Your task to perform on an android device: turn off improve location accuracy Image 0: 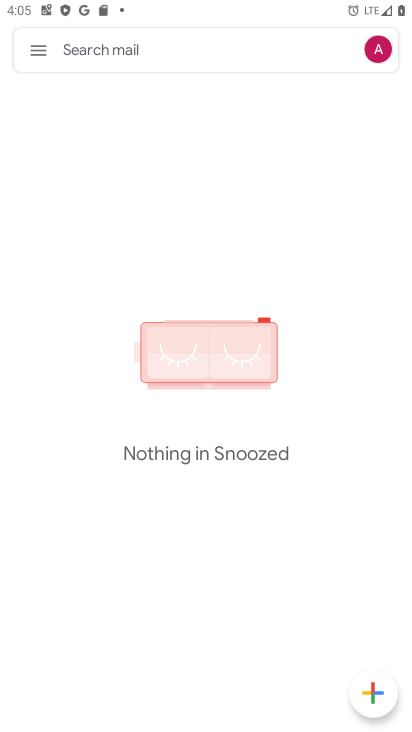
Step 0: press home button
Your task to perform on an android device: turn off improve location accuracy Image 1: 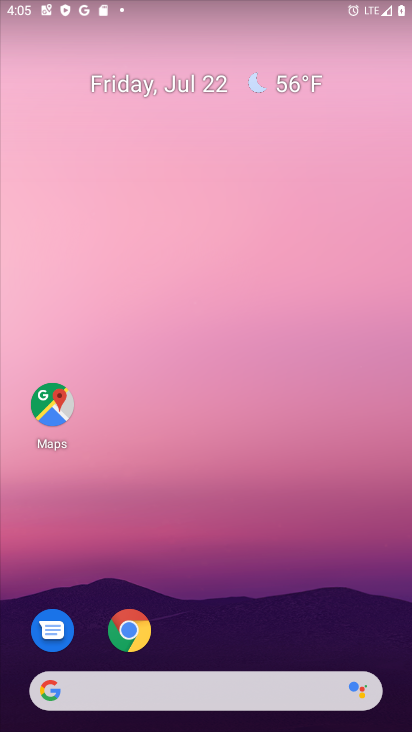
Step 1: drag from (197, 685) to (221, 128)
Your task to perform on an android device: turn off improve location accuracy Image 2: 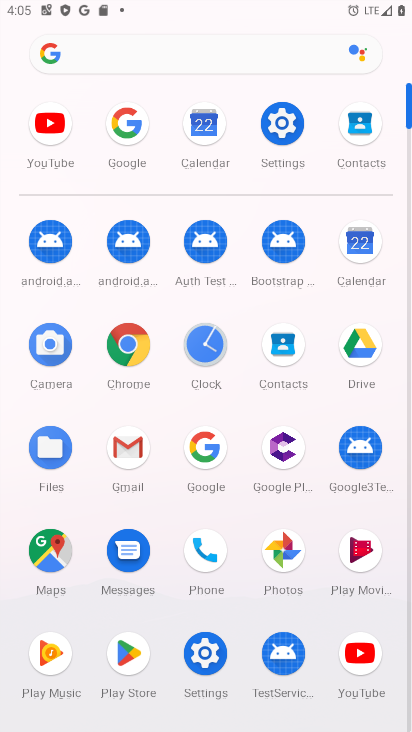
Step 2: click (286, 132)
Your task to perform on an android device: turn off improve location accuracy Image 3: 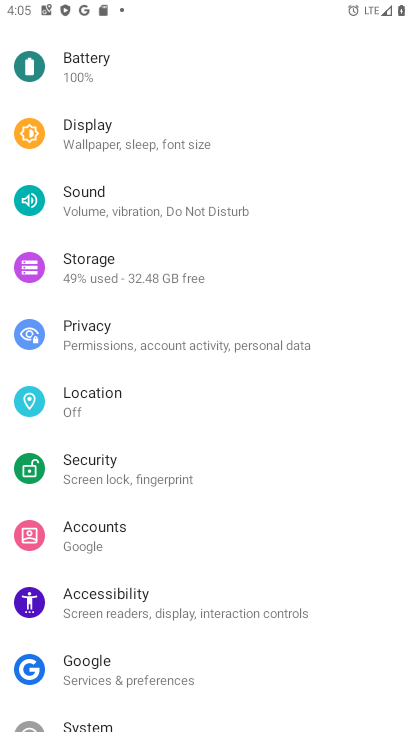
Step 3: click (112, 403)
Your task to perform on an android device: turn off improve location accuracy Image 4: 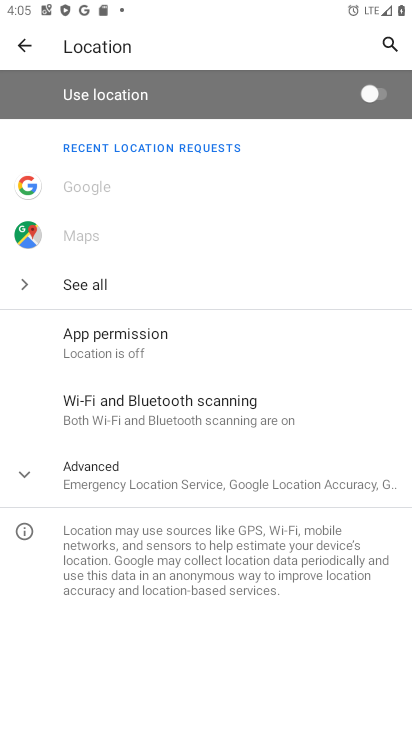
Step 4: click (374, 97)
Your task to perform on an android device: turn off improve location accuracy Image 5: 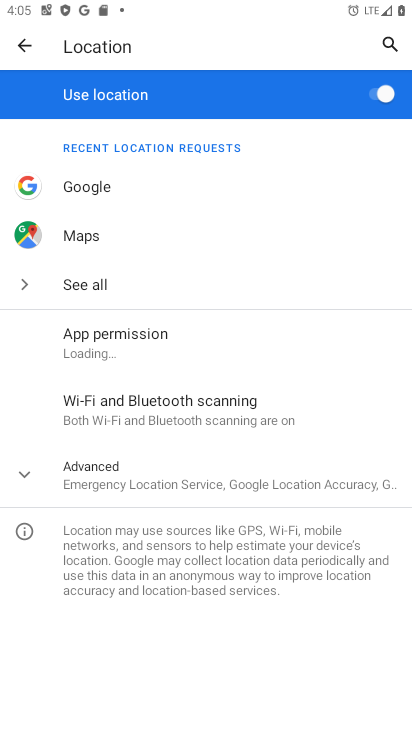
Step 5: click (118, 482)
Your task to perform on an android device: turn off improve location accuracy Image 6: 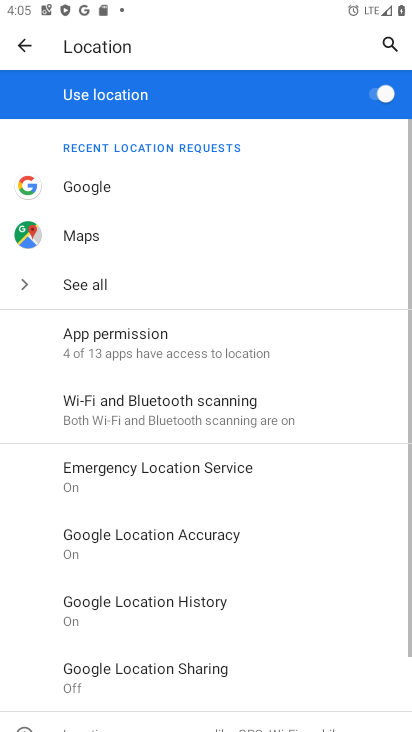
Step 6: click (178, 552)
Your task to perform on an android device: turn off improve location accuracy Image 7: 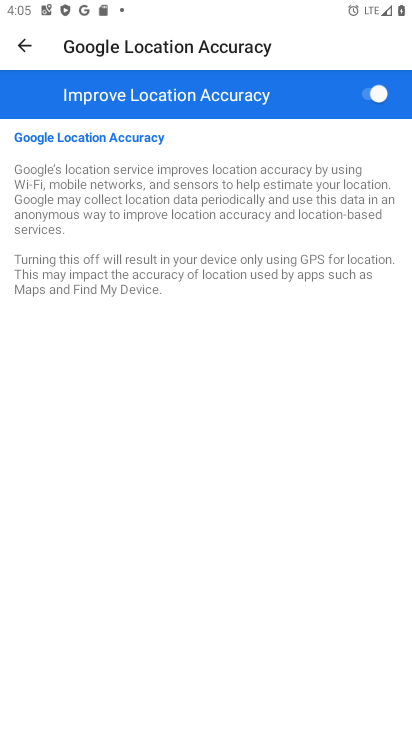
Step 7: click (377, 90)
Your task to perform on an android device: turn off improve location accuracy Image 8: 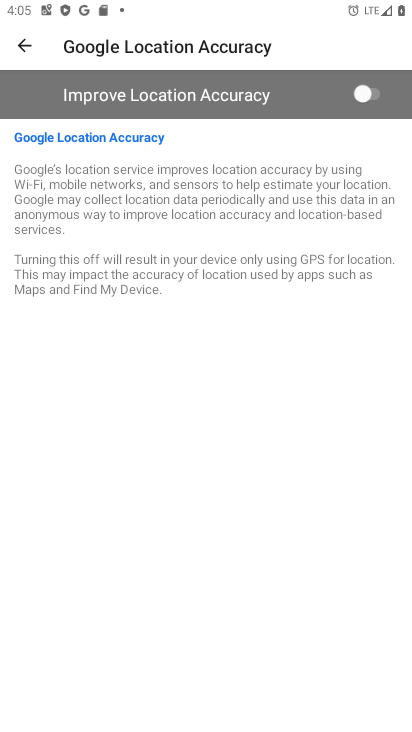
Step 8: task complete